Your task to perform on an android device: turn on the 24-hour format for clock Image 0: 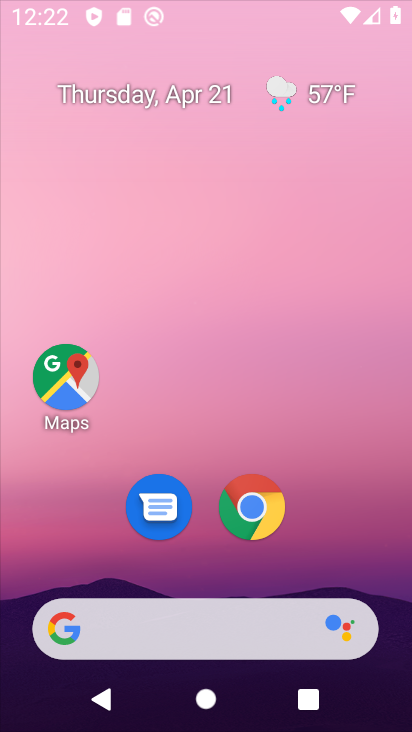
Step 0: click (224, 182)
Your task to perform on an android device: turn on the 24-hour format for clock Image 1: 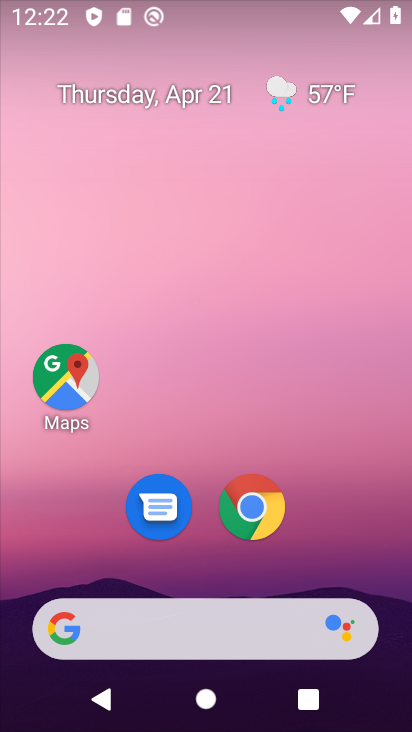
Step 1: drag from (211, 439) to (306, 95)
Your task to perform on an android device: turn on the 24-hour format for clock Image 2: 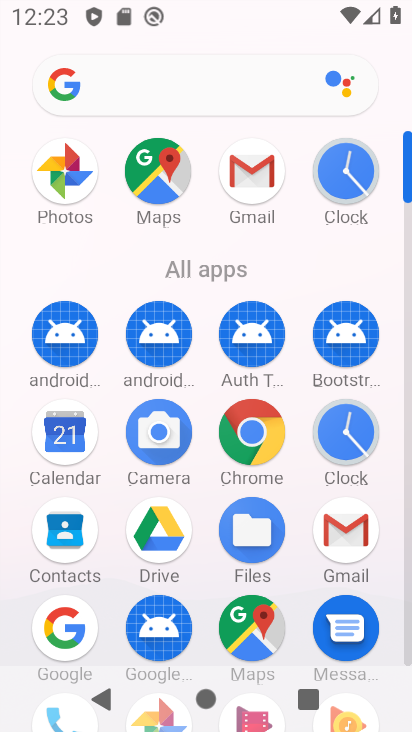
Step 2: click (334, 446)
Your task to perform on an android device: turn on the 24-hour format for clock Image 3: 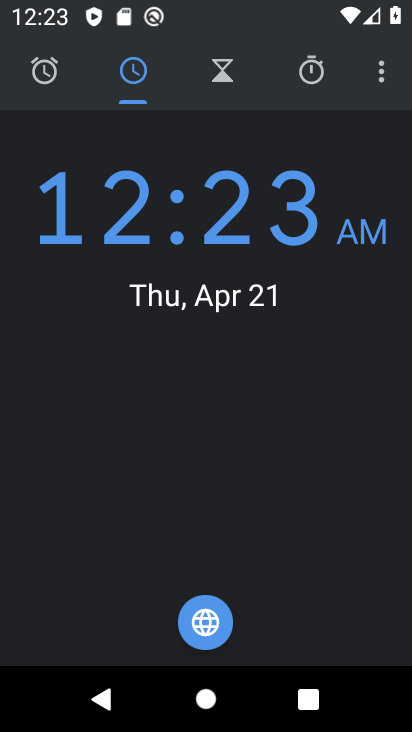
Step 3: drag from (275, 387) to (296, 240)
Your task to perform on an android device: turn on the 24-hour format for clock Image 4: 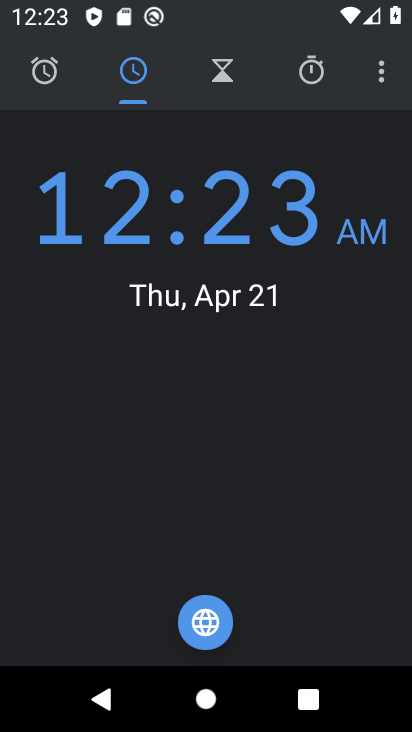
Step 4: click (392, 81)
Your task to perform on an android device: turn on the 24-hour format for clock Image 5: 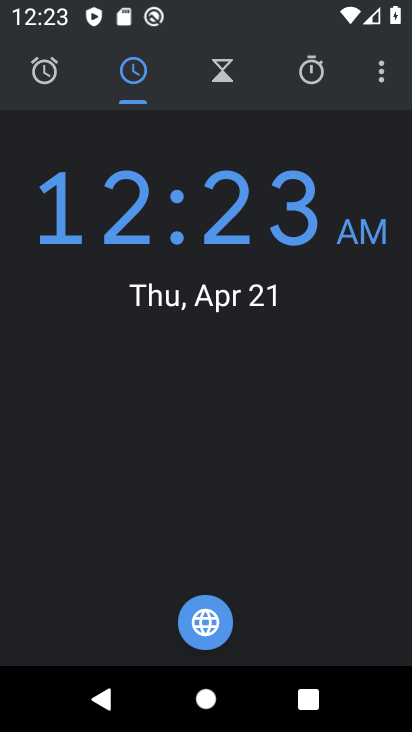
Step 5: click (381, 81)
Your task to perform on an android device: turn on the 24-hour format for clock Image 6: 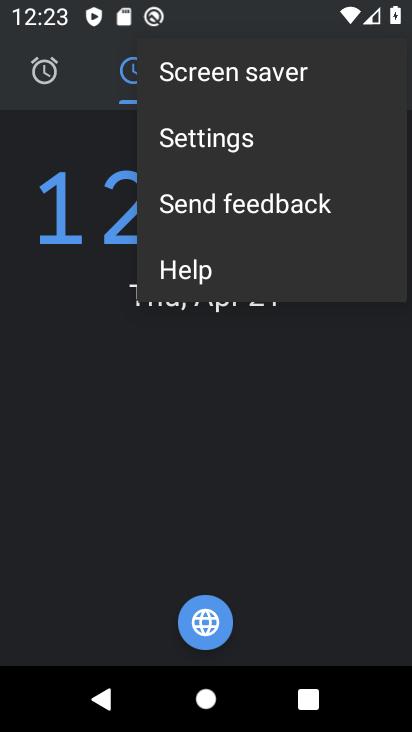
Step 6: click (241, 142)
Your task to perform on an android device: turn on the 24-hour format for clock Image 7: 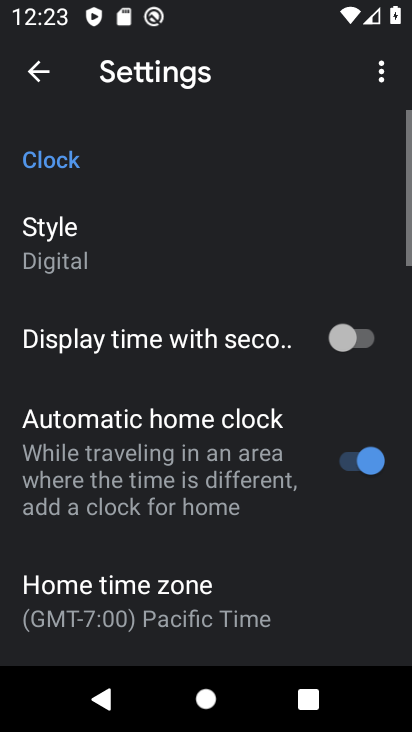
Step 7: drag from (186, 554) to (245, 102)
Your task to perform on an android device: turn on the 24-hour format for clock Image 8: 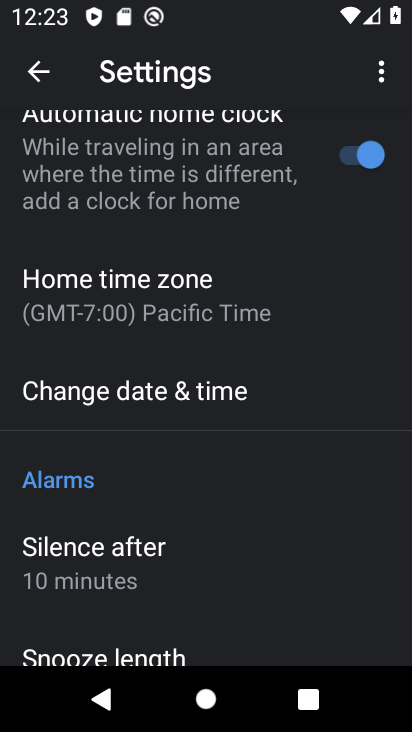
Step 8: drag from (206, 514) to (216, 302)
Your task to perform on an android device: turn on the 24-hour format for clock Image 9: 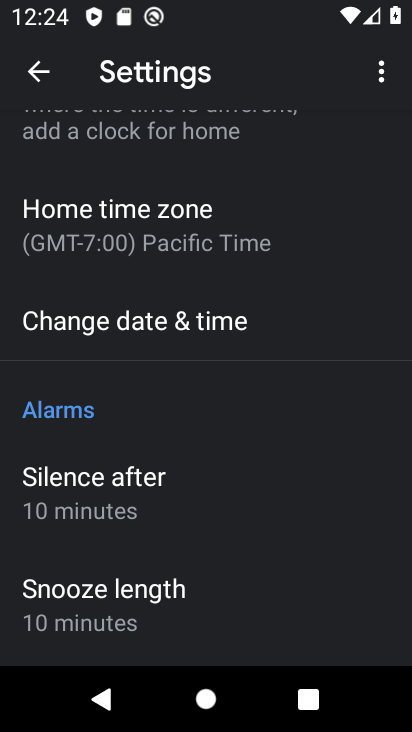
Step 9: click (153, 317)
Your task to perform on an android device: turn on the 24-hour format for clock Image 10: 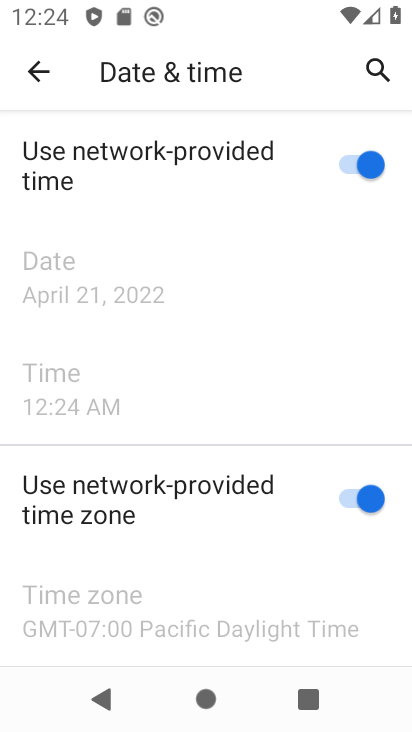
Step 10: drag from (253, 527) to (294, 107)
Your task to perform on an android device: turn on the 24-hour format for clock Image 11: 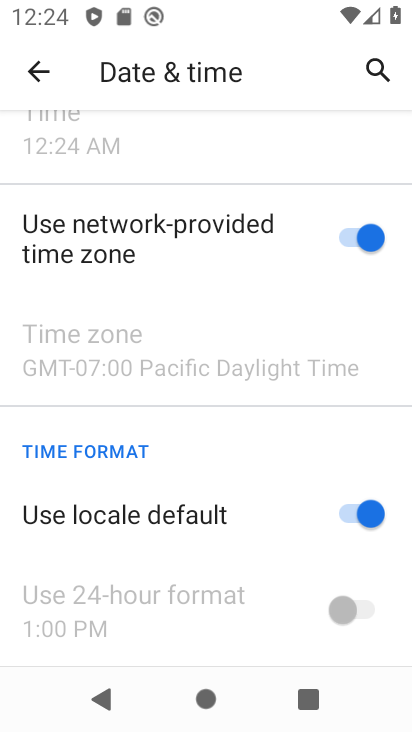
Step 11: click (349, 506)
Your task to perform on an android device: turn on the 24-hour format for clock Image 12: 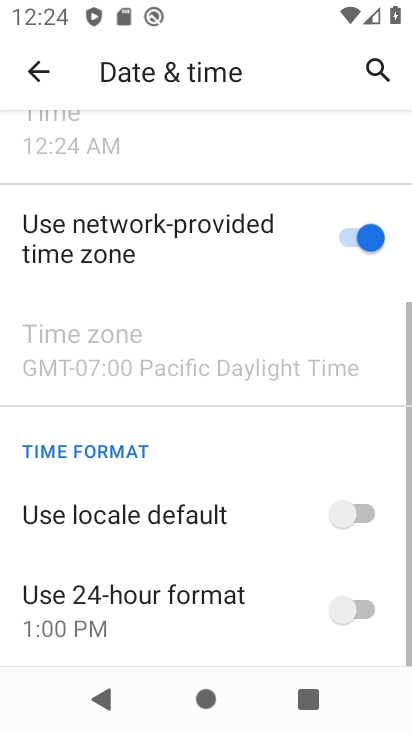
Step 12: click (350, 603)
Your task to perform on an android device: turn on the 24-hour format for clock Image 13: 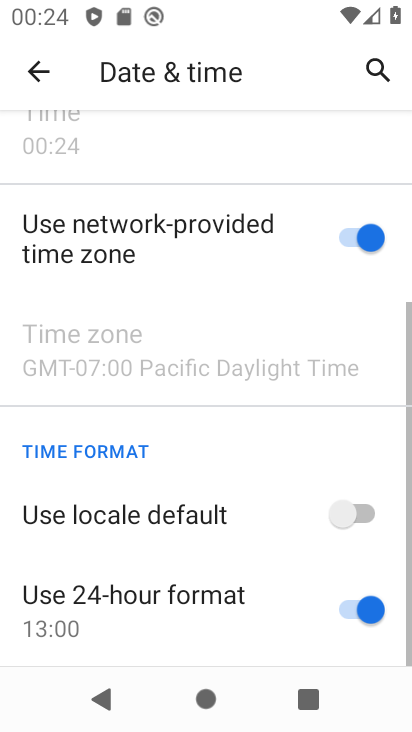
Step 13: task complete